Your task to perform on an android device: Open wifi settings Image 0: 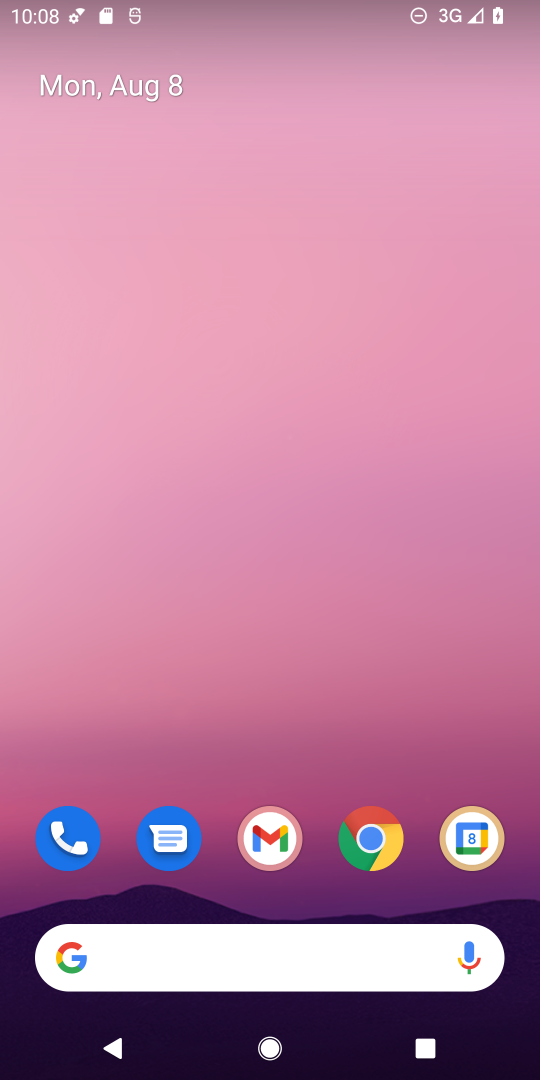
Step 0: press home button
Your task to perform on an android device: Open wifi settings Image 1: 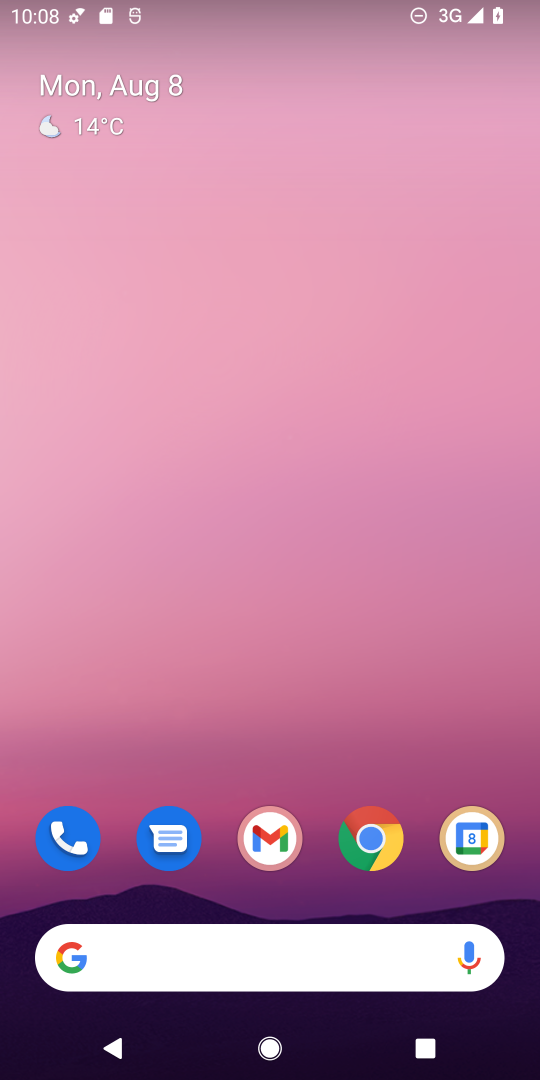
Step 1: drag from (317, 813) to (317, 188)
Your task to perform on an android device: Open wifi settings Image 2: 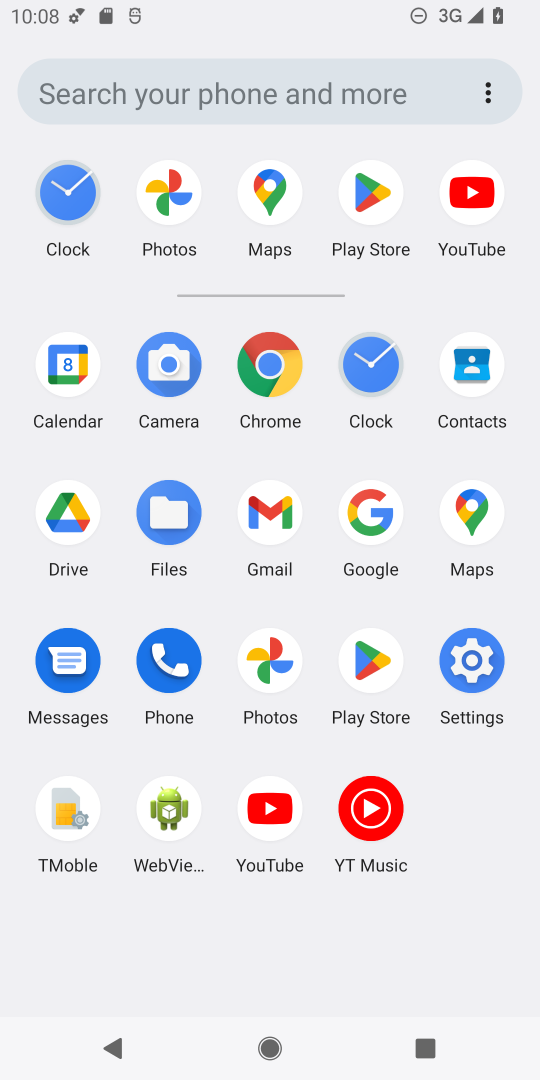
Step 2: click (456, 664)
Your task to perform on an android device: Open wifi settings Image 3: 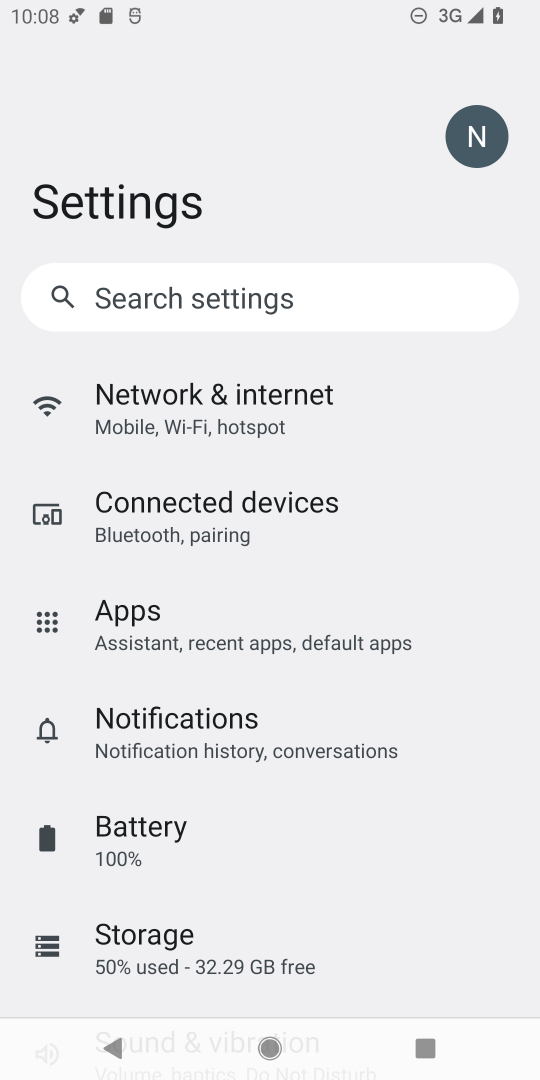
Step 3: click (266, 413)
Your task to perform on an android device: Open wifi settings Image 4: 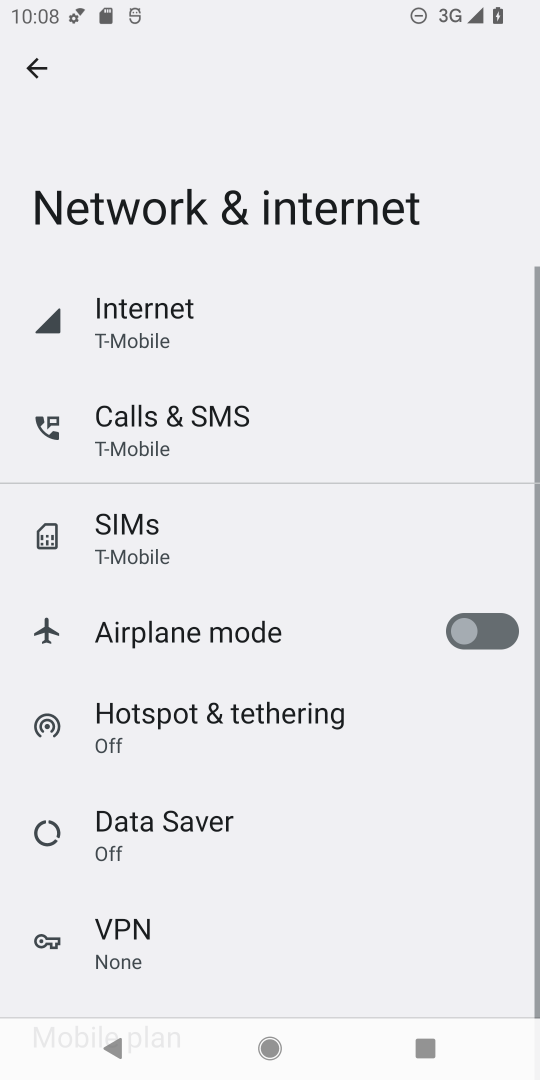
Step 4: click (141, 316)
Your task to perform on an android device: Open wifi settings Image 5: 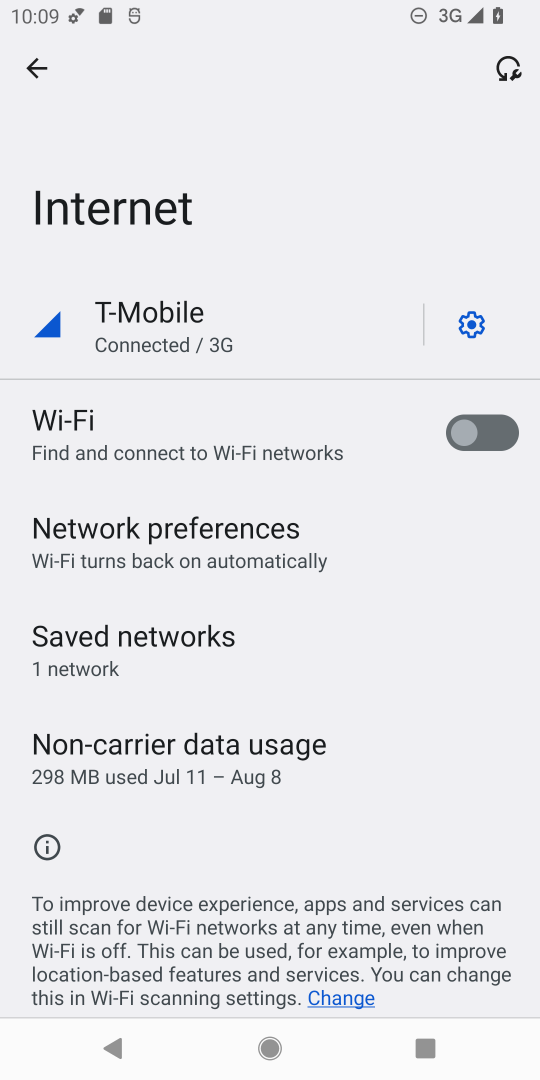
Step 5: click (109, 439)
Your task to perform on an android device: Open wifi settings Image 6: 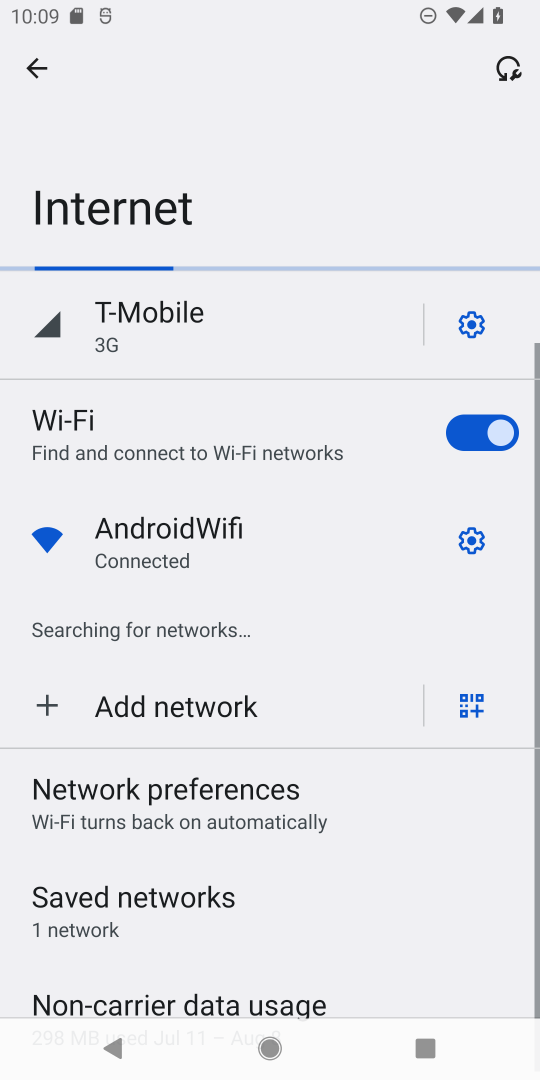
Step 6: click (204, 530)
Your task to perform on an android device: Open wifi settings Image 7: 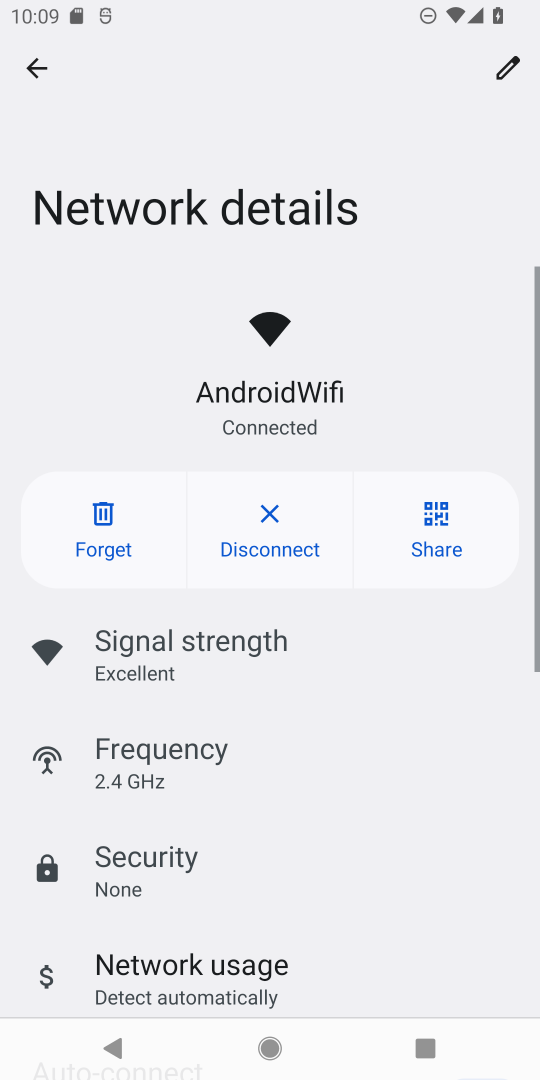
Step 7: task complete